Your task to perform on an android device: turn on data saver in the chrome app Image 0: 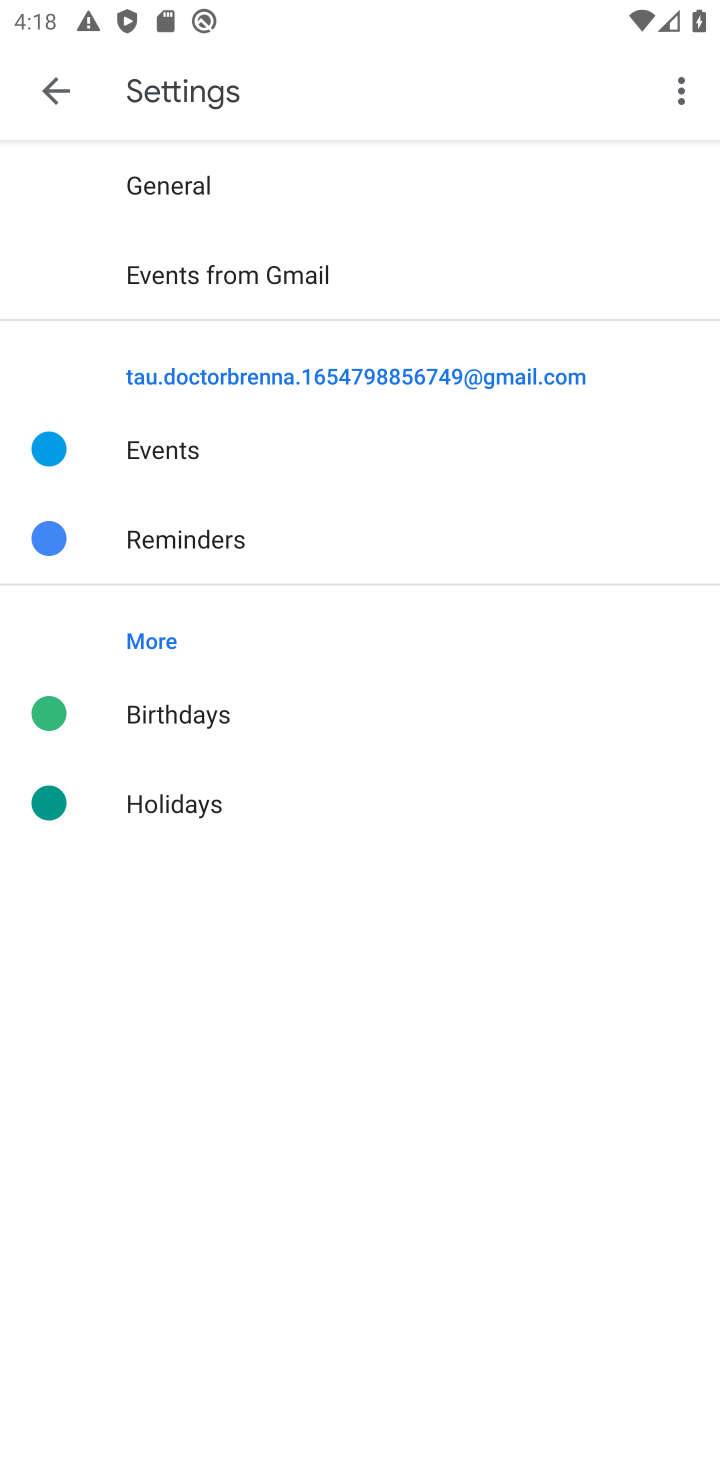
Step 0: press home button
Your task to perform on an android device: turn on data saver in the chrome app Image 1: 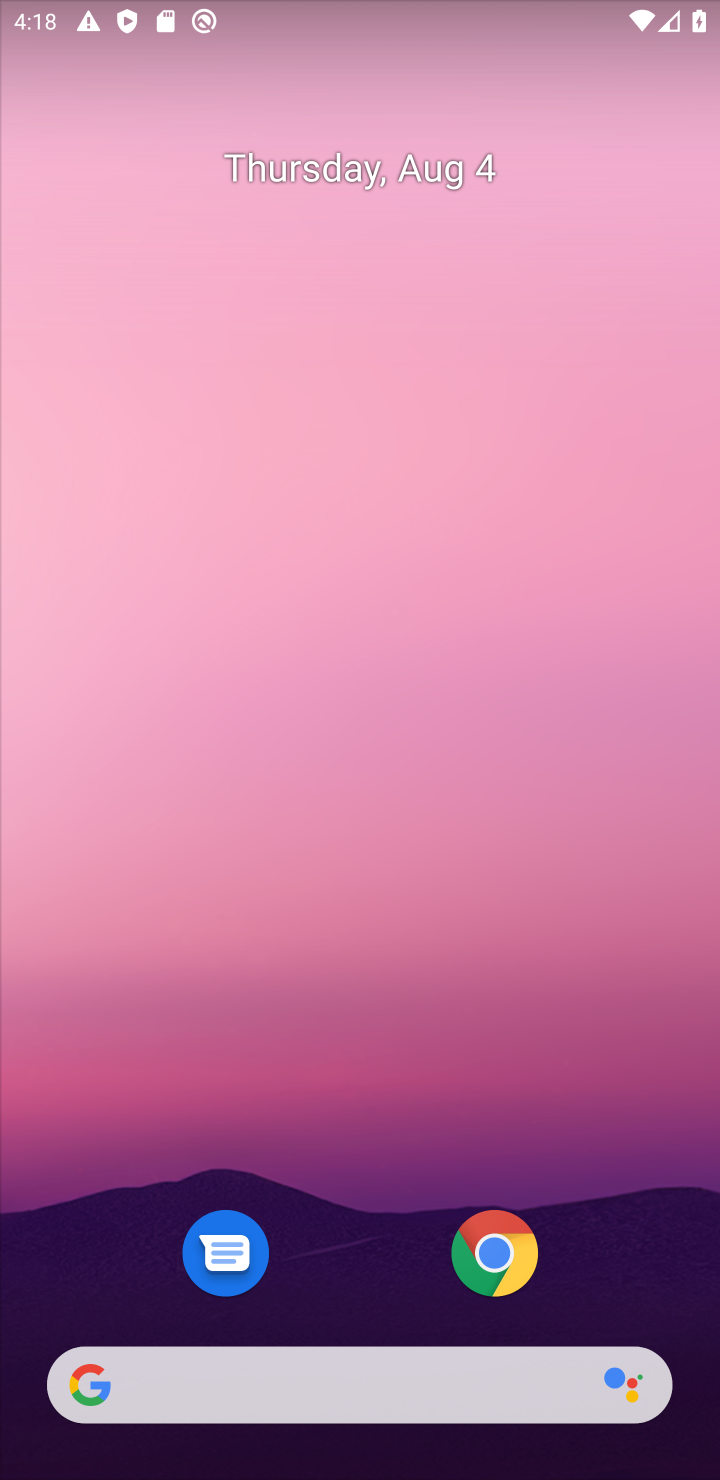
Step 1: drag from (267, 1139) to (248, 455)
Your task to perform on an android device: turn on data saver in the chrome app Image 2: 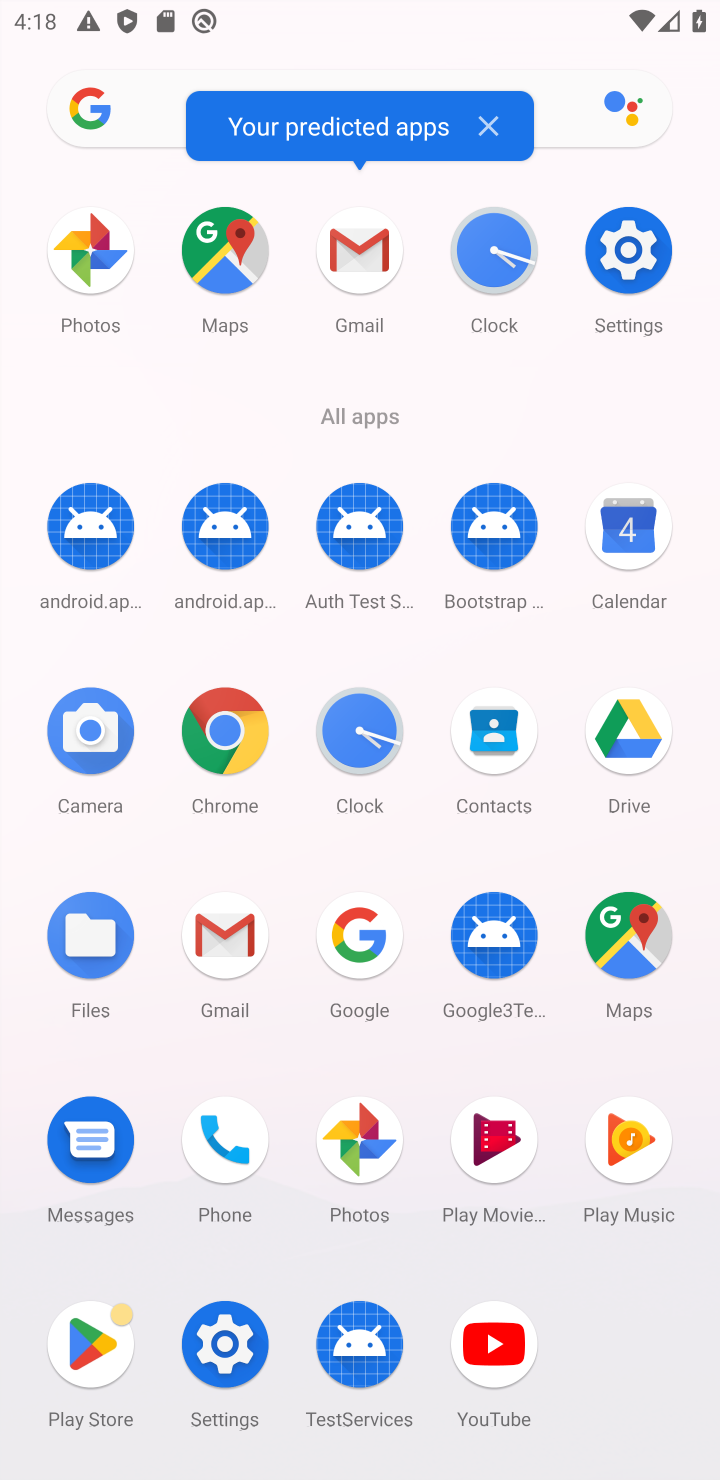
Step 2: click (224, 724)
Your task to perform on an android device: turn on data saver in the chrome app Image 3: 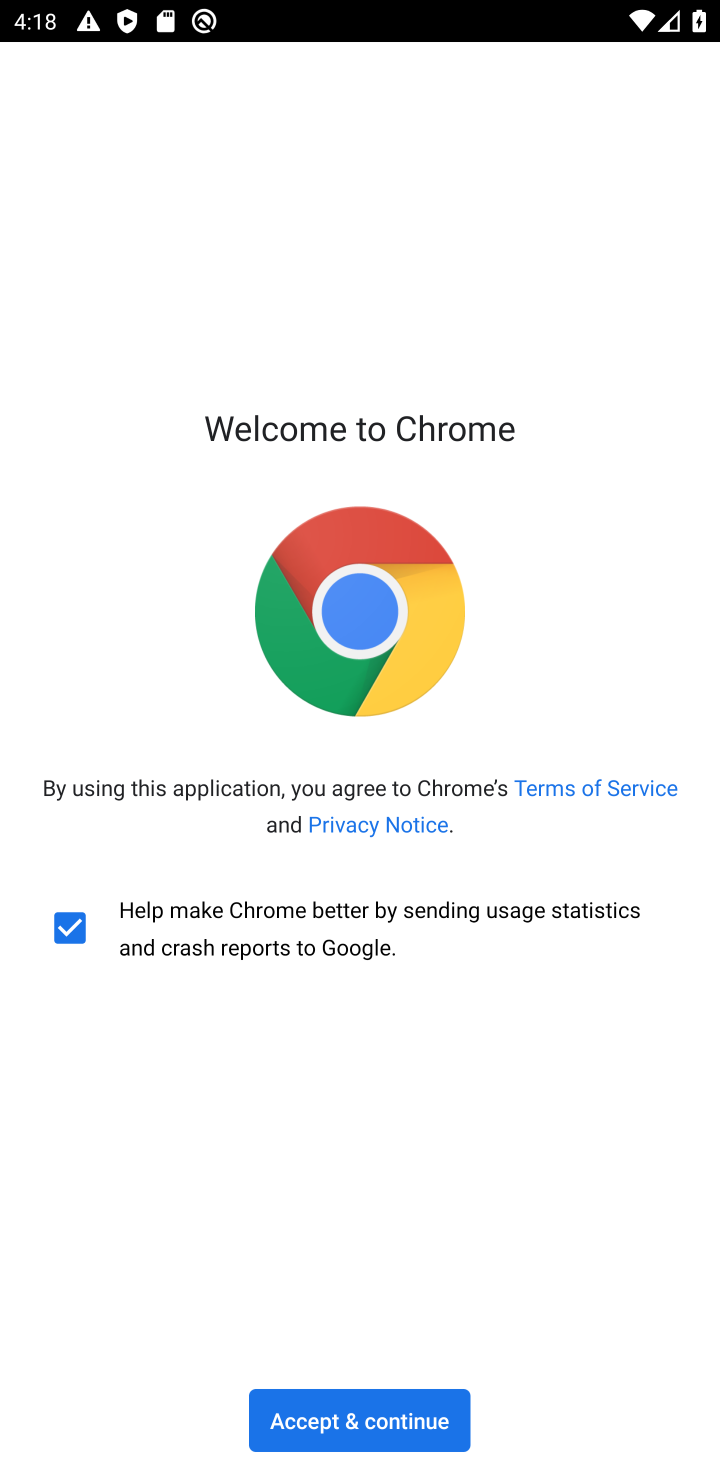
Step 3: click (409, 1423)
Your task to perform on an android device: turn on data saver in the chrome app Image 4: 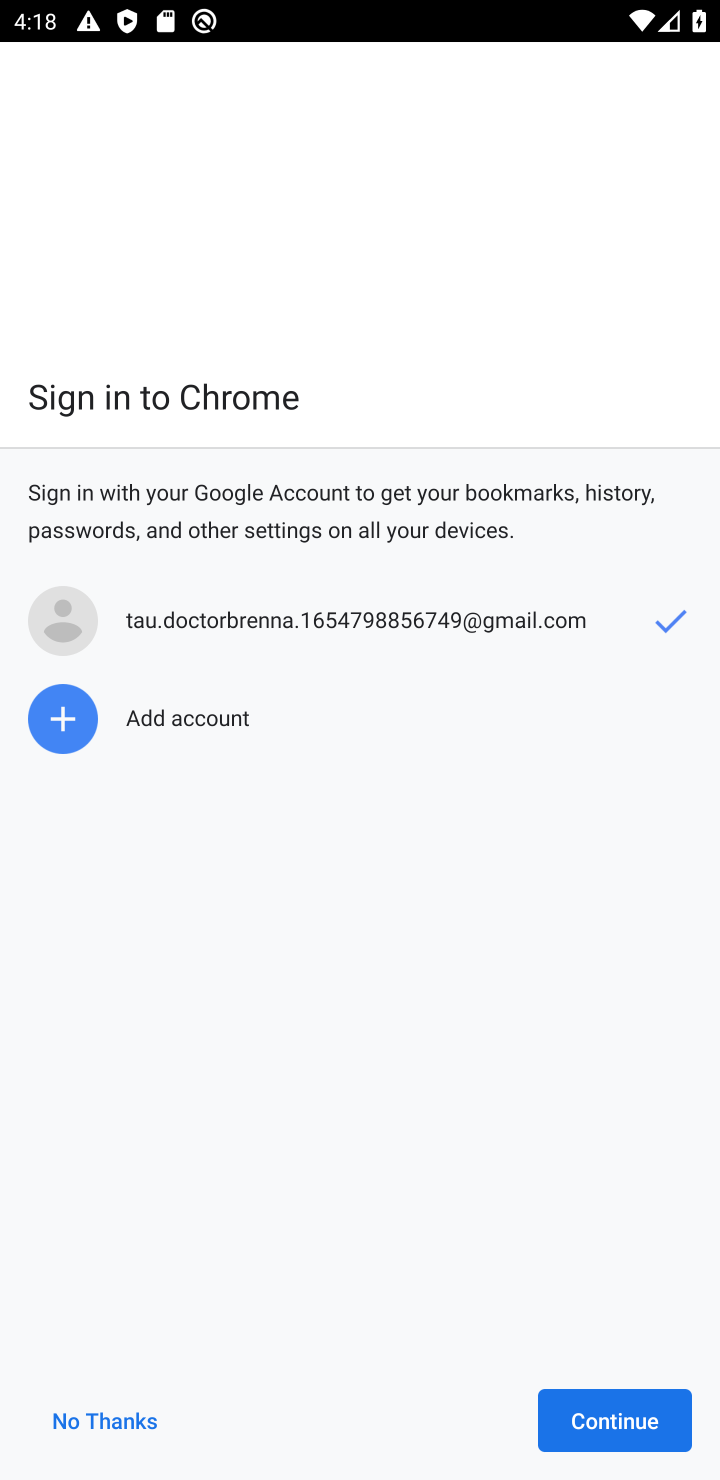
Step 4: click (576, 1426)
Your task to perform on an android device: turn on data saver in the chrome app Image 5: 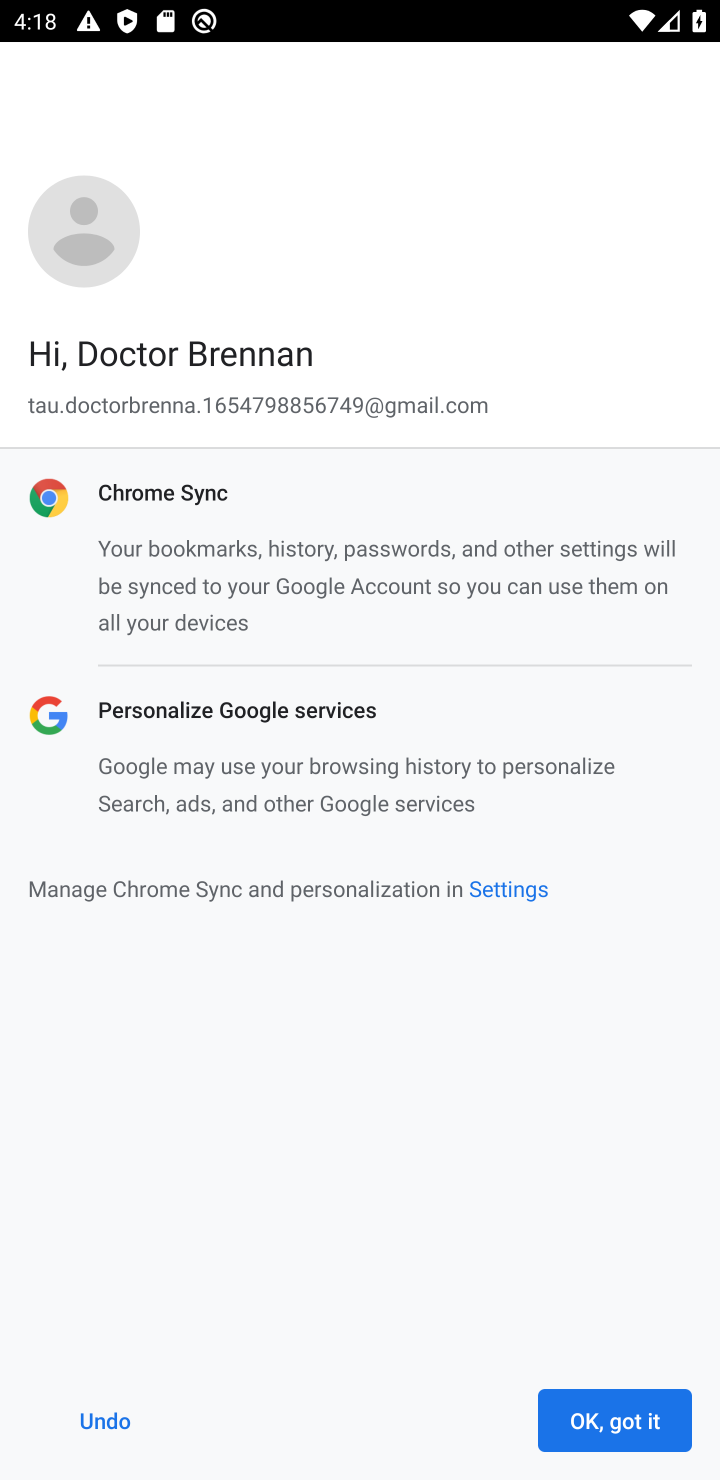
Step 5: click (576, 1426)
Your task to perform on an android device: turn on data saver in the chrome app Image 6: 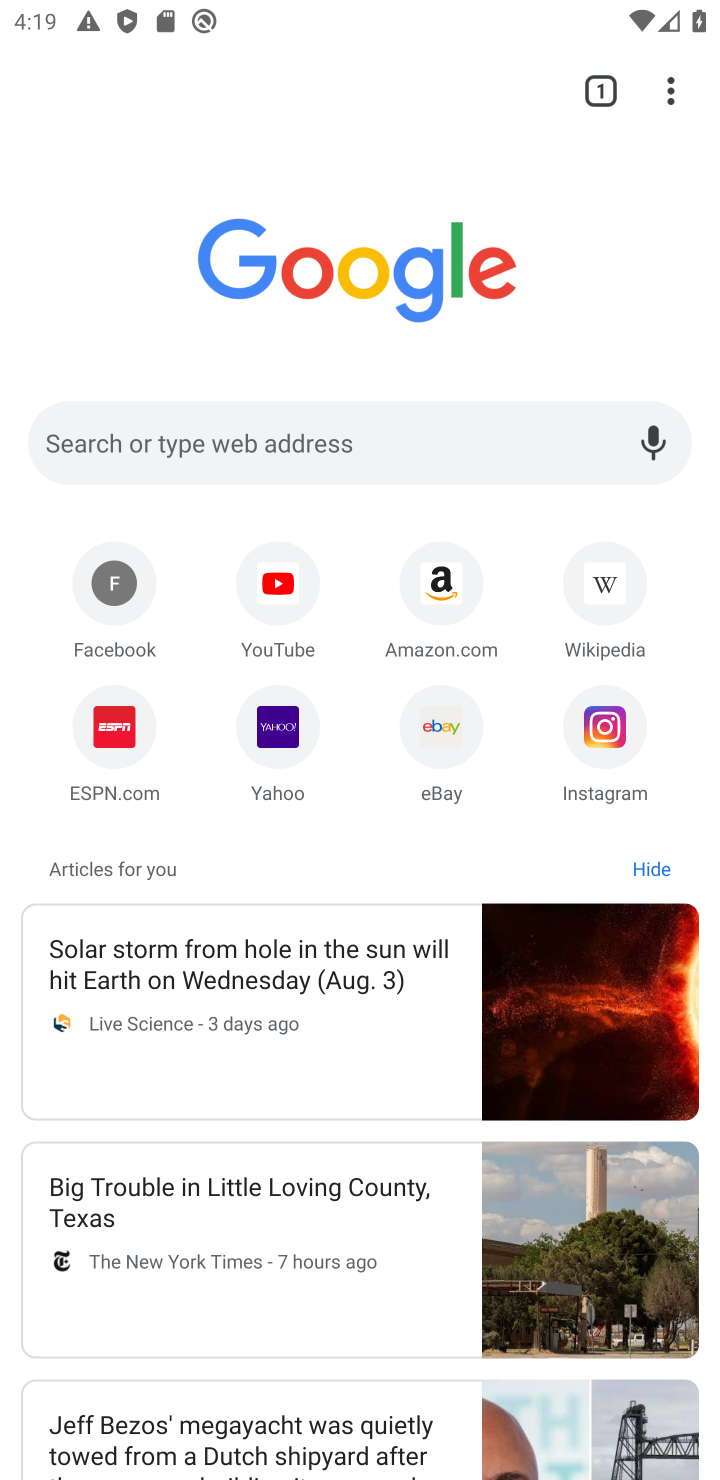
Step 6: click (661, 98)
Your task to perform on an android device: turn on data saver in the chrome app Image 7: 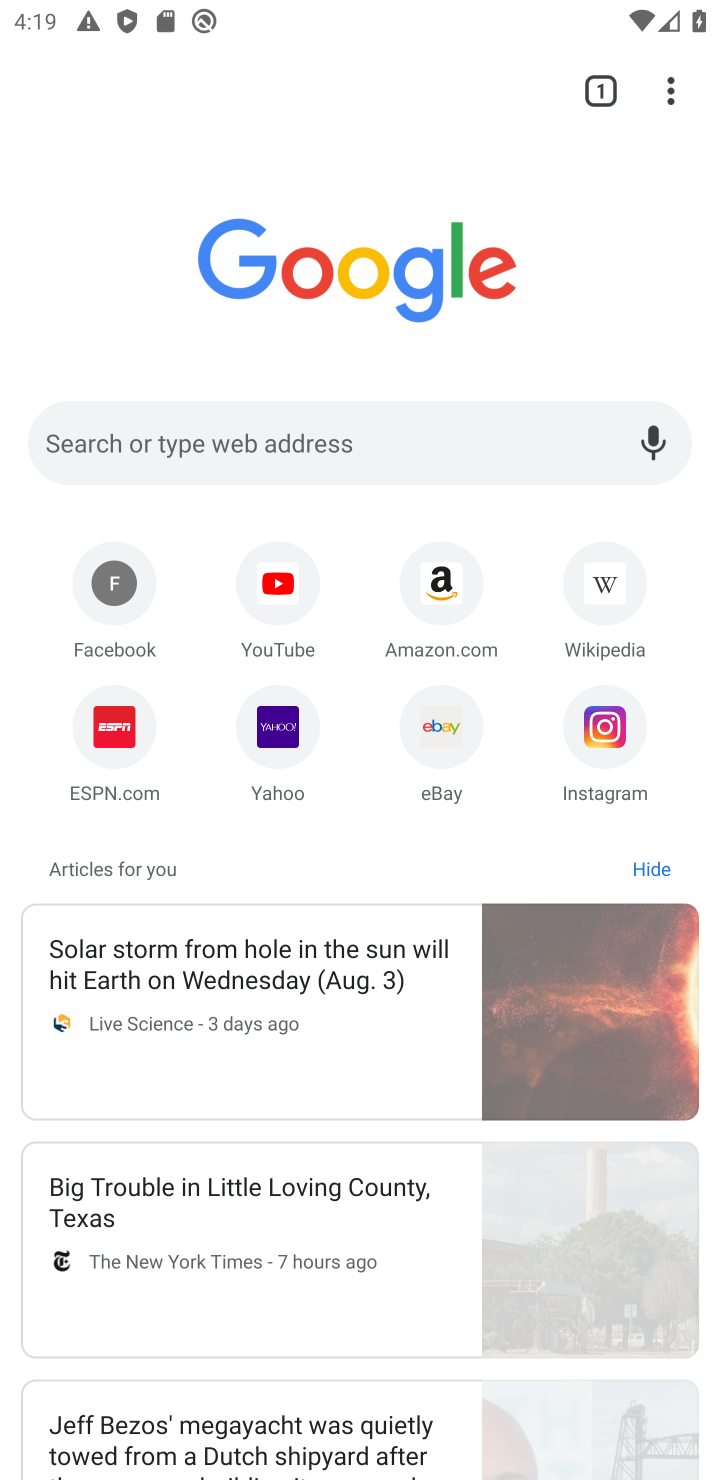
Step 7: click (668, 80)
Your task to perform on an android device: turn on data saver in the chrome app Image 8: 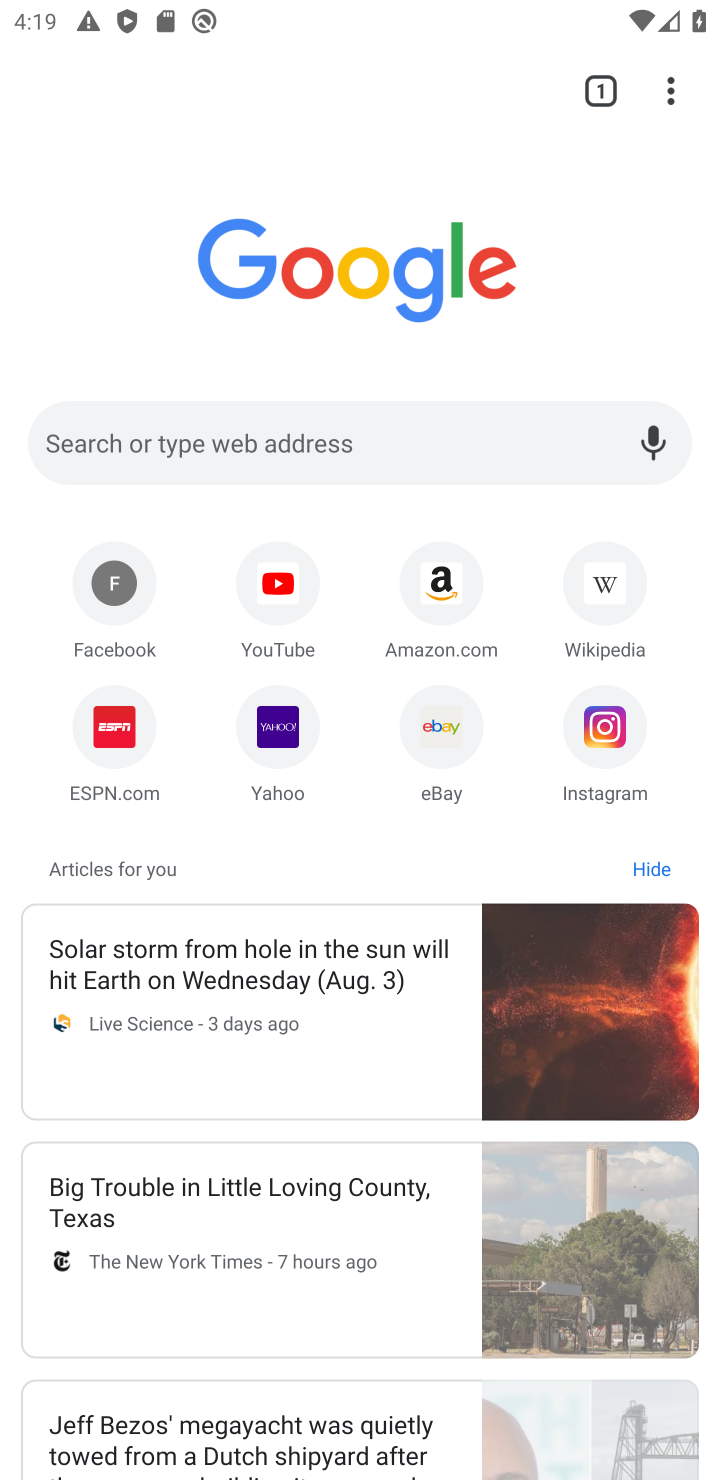
Step 8: click (673, 91)
Your task to perform on an android device: turn on data saver in the chrome app Image 9: 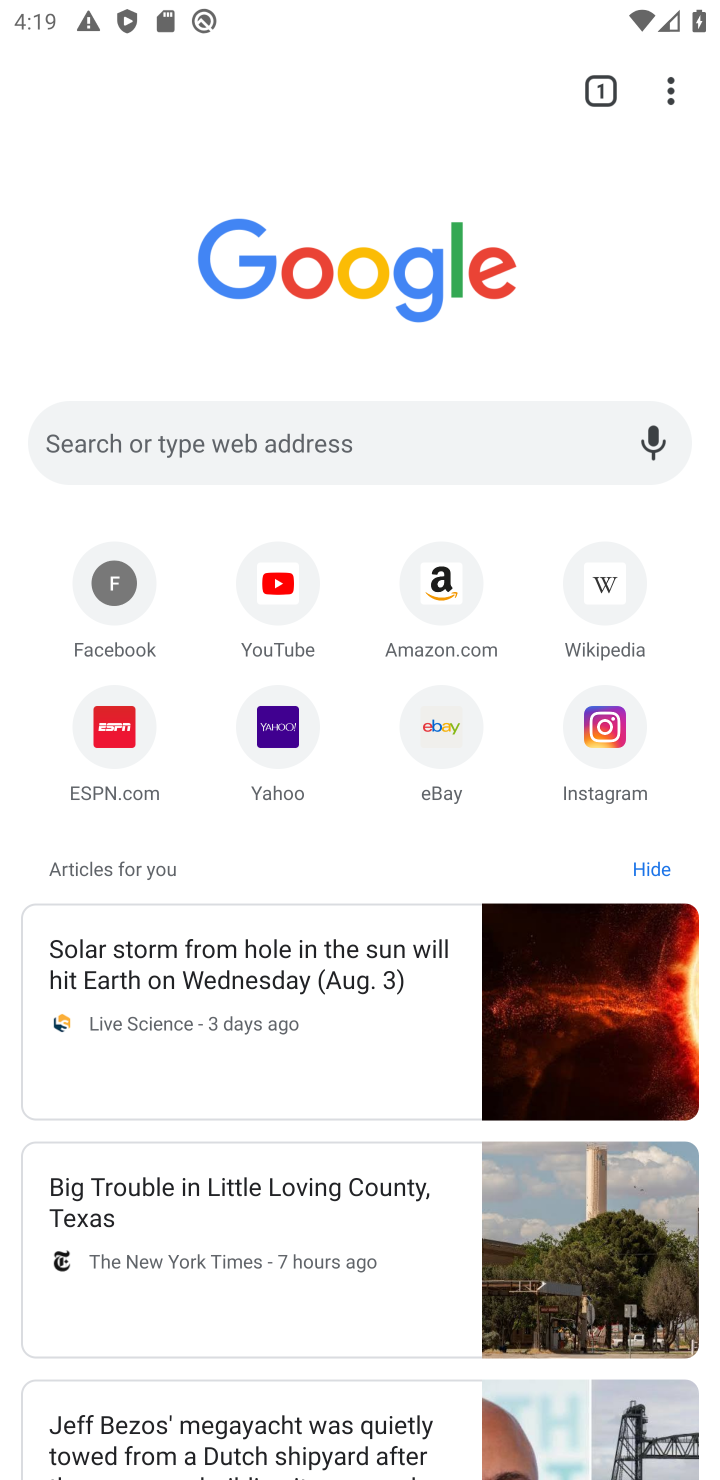
Step 9: click (664, 103)
Your task to perform on an android device: turn on data saver in the chrome app Image 10: 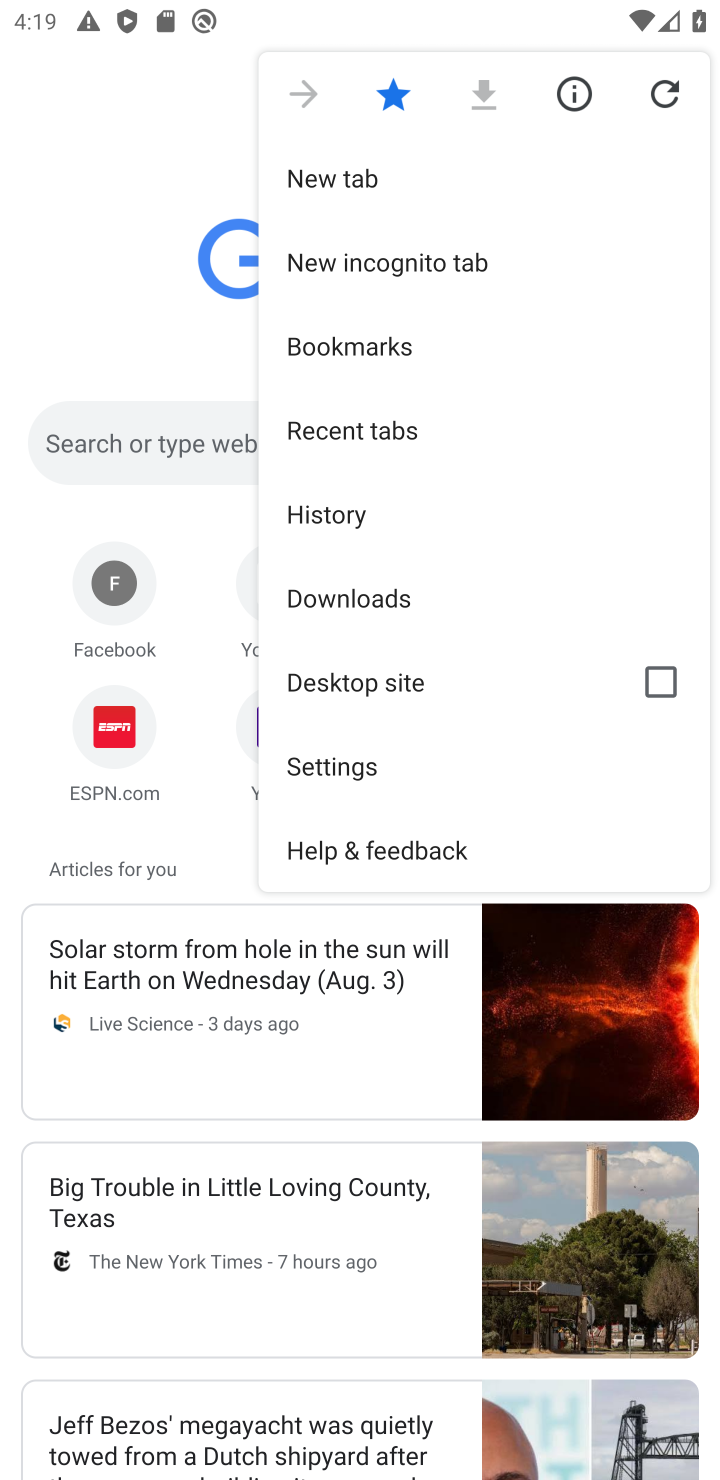
Step 10: click (359, 761)
Your task to perform on an android device: turn on data saver in the chrome app Image 11: 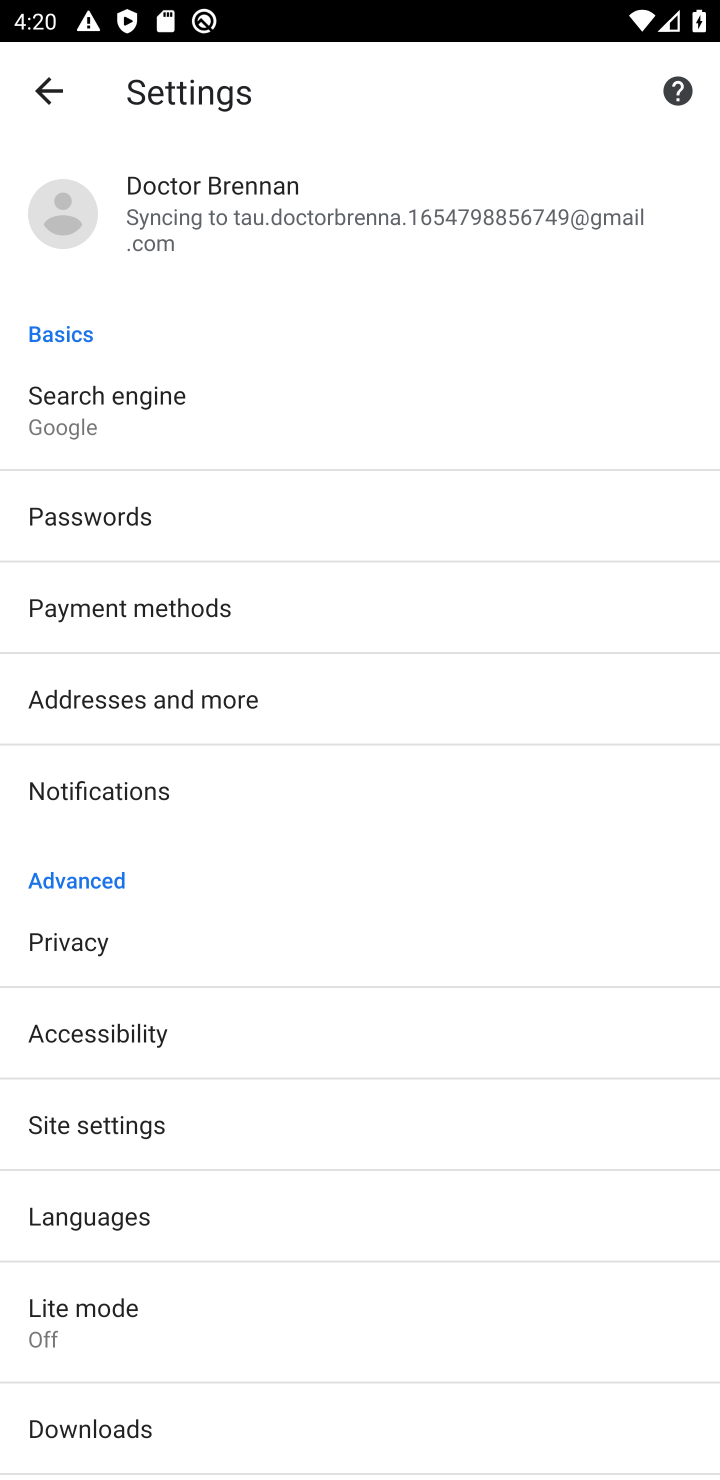
Step 11: click (100, 1316)
Your task to perform on an android device: turn on data saver in the chrome app Image 12: 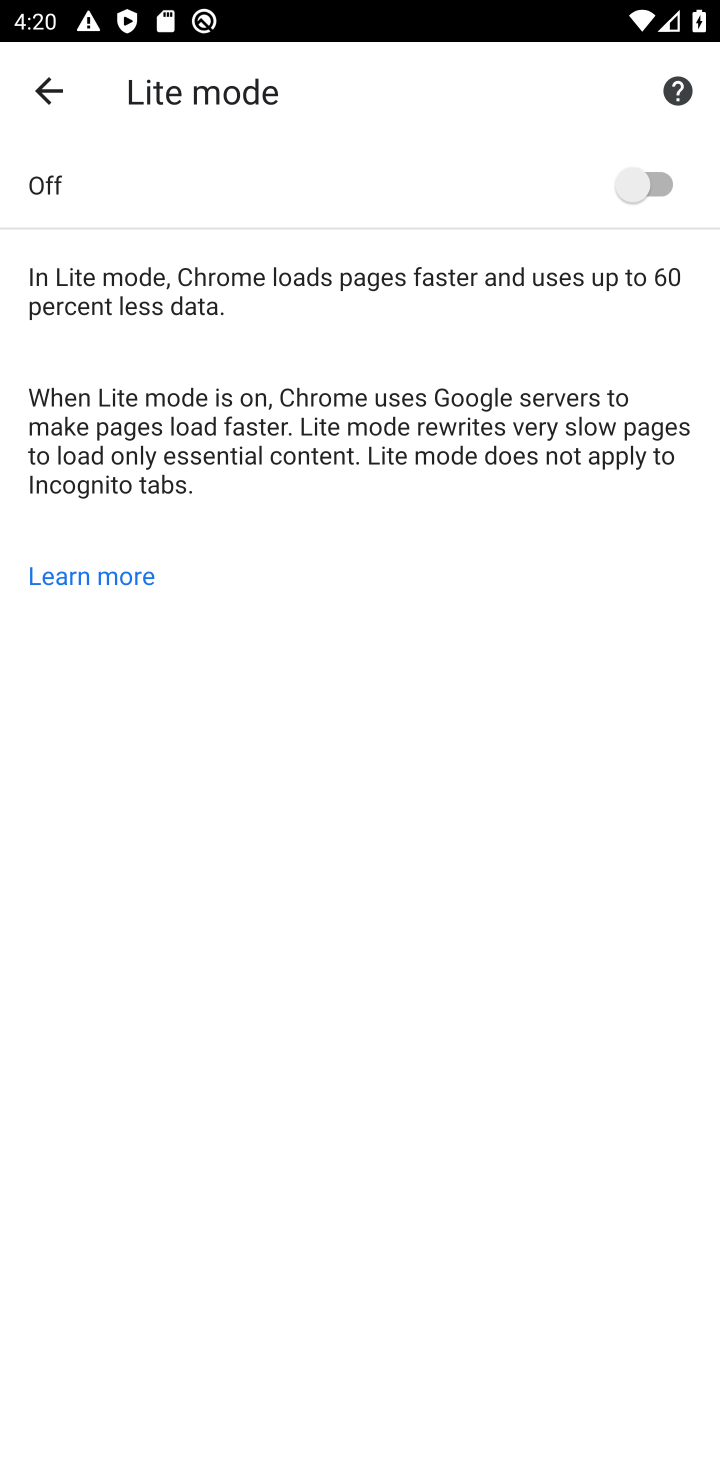
Step 12: click (653, 183)
Your task to perform on an android device: turn on data saver in the chrome app Image 13: 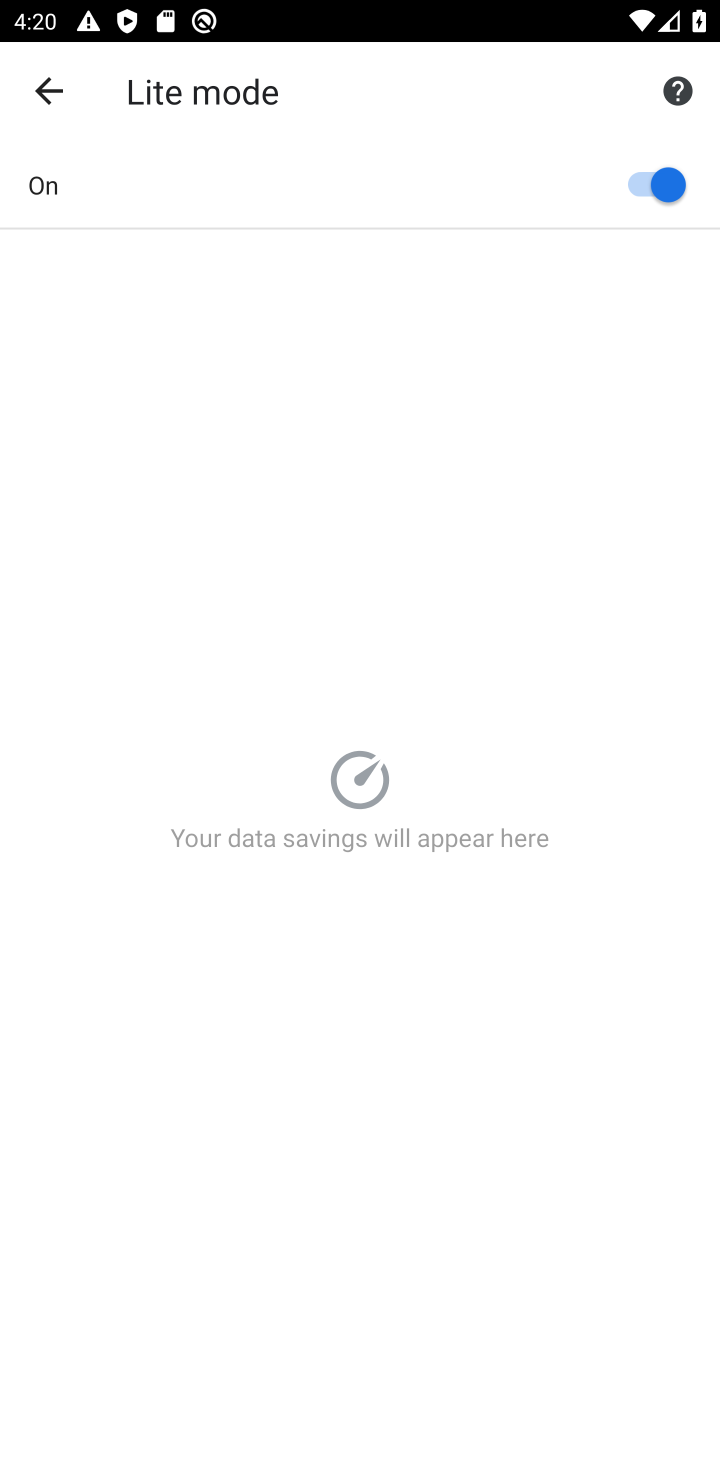
Step 13: task complete